Your task to perform on an android device: move an email to a new category in the gmail app Image 0: 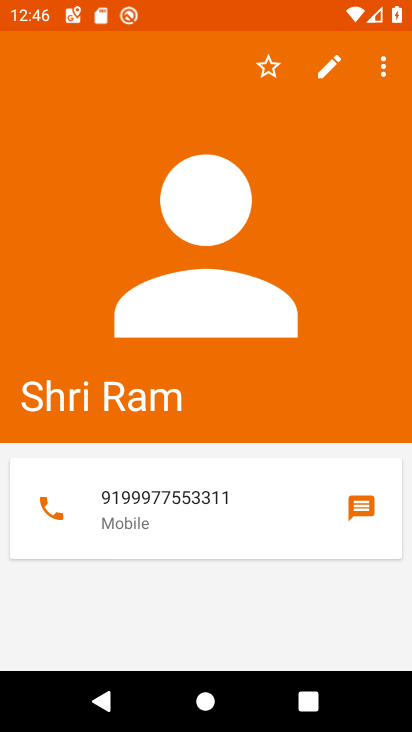
Step 0: press home button
Your task to perform on an android device: move an email to a new category in the gmail app Image 1: 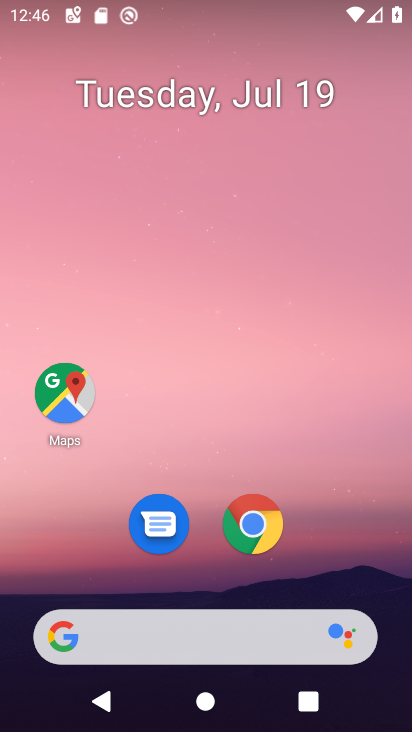
Step 1: drag from (332, 550) to (286, 72)
Your task to perform on an android device: move an email to a new category in the gmail app Image 2: 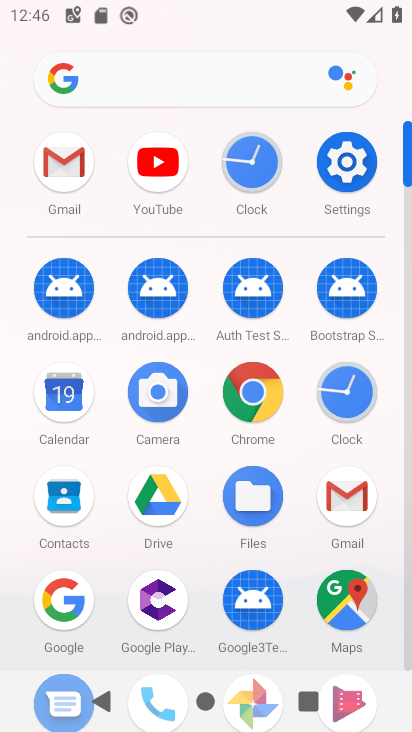
Step 2: click (61, 153)
Your task to perform on an android device: move an email to a new category in the gmail app Image 3: 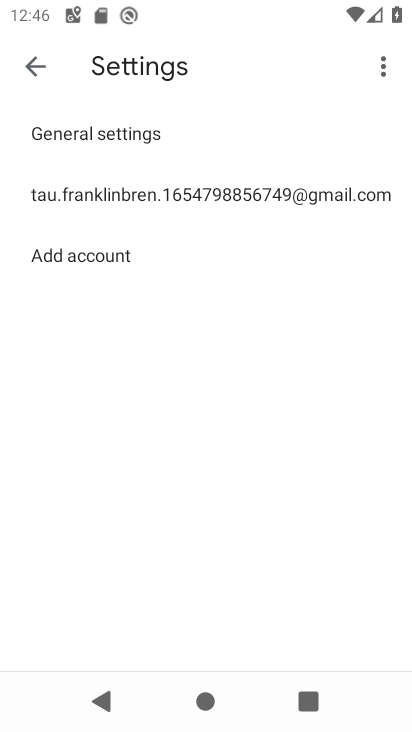
Step 3: click (38, 69)
Your task to perform on an android device: move an email to a new category in the gmail app Image 4: 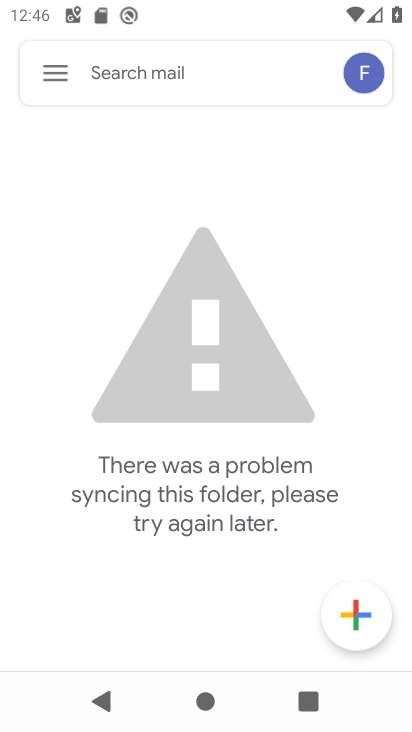
Step 4: click (58, 63)
Your task to perform on an android device: move an email to a new category in the gmail app Image 5: 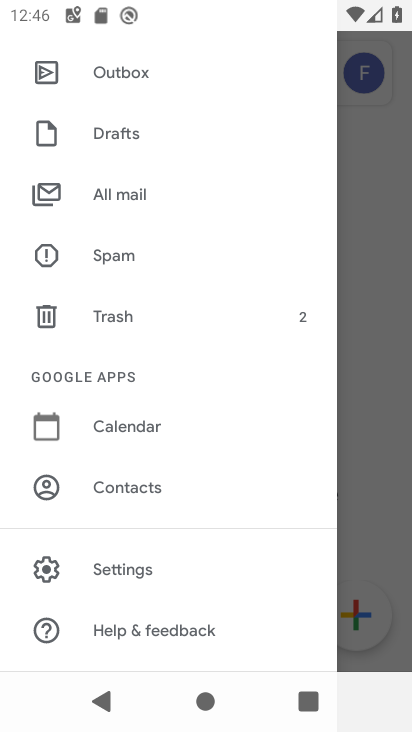
Step 5: click (116, 187)
Your task to perform on an android device: move an email to a new category in the gmail app Image 6: 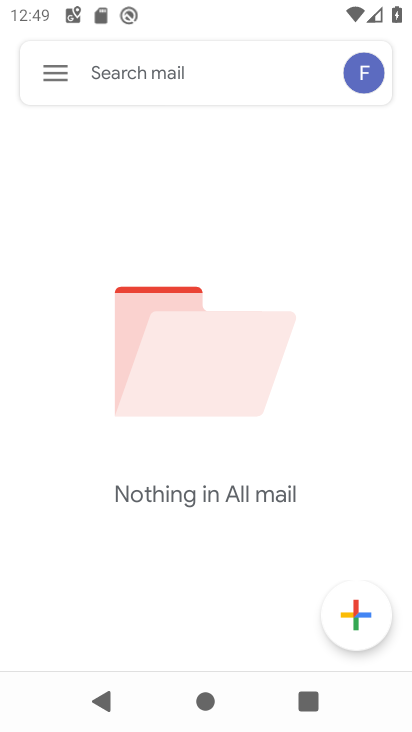
Step 6: task complete